Your task to perform on an android device: add a contact Image 0: 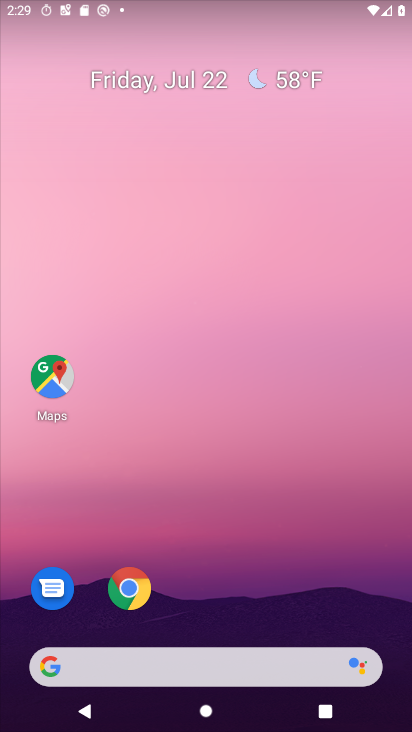
Step 0: drag from (296, 574) to (168, 54)
Your task to perform on an android device: add a contact Image 1: 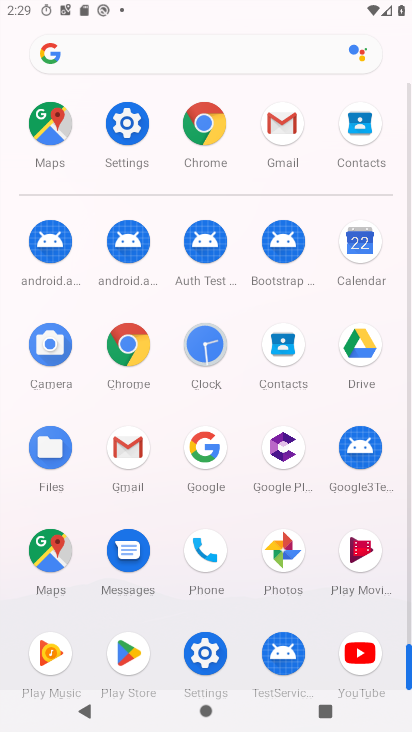
Step 1: click (358, 117)
Your task to perform on an android device: add a contact Image 2: 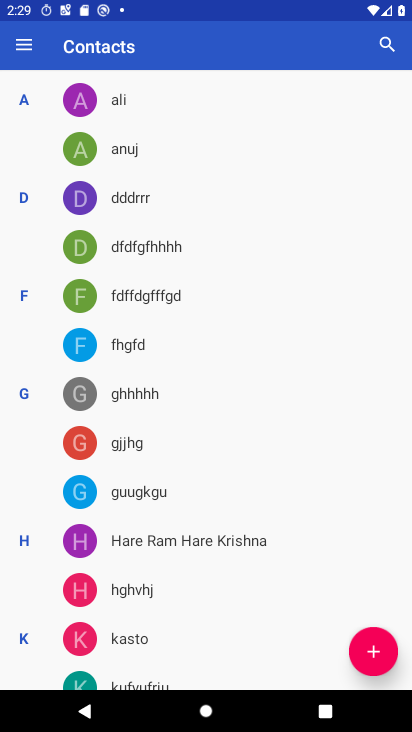
Step 2: click (373, 649)
Your task to perform on an android device: add a contact Image 3: 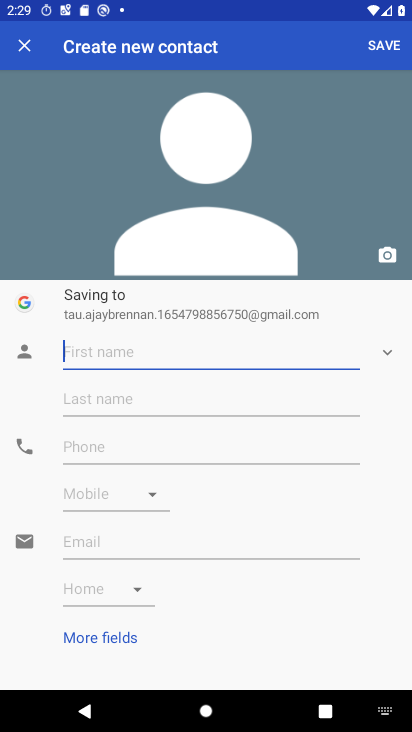
Step 3: type "uumhk"
Your task to perform on an android device: add a contact Image 4: 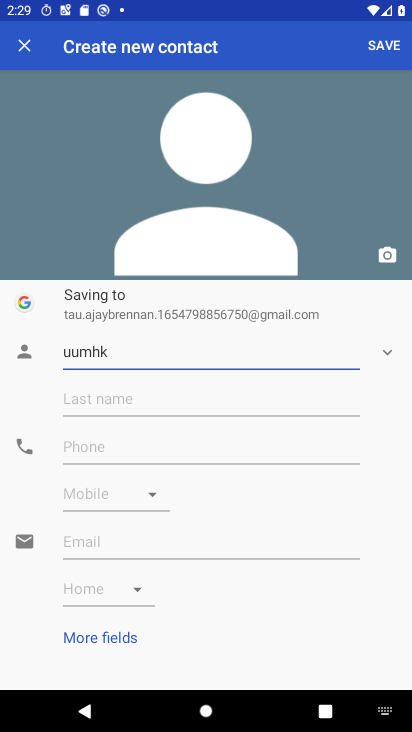
Step 4: click (255, 437)
Your task to perform on an android device: add a contact Image 5: 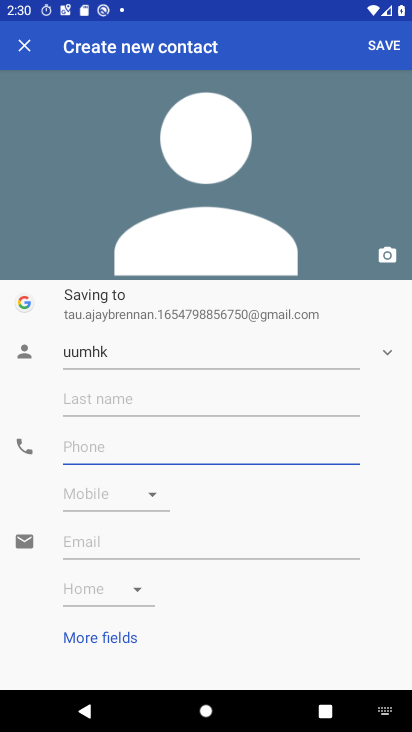
Step 5: type "84570"
Your task to perform on an android device: add a contact Image 6: 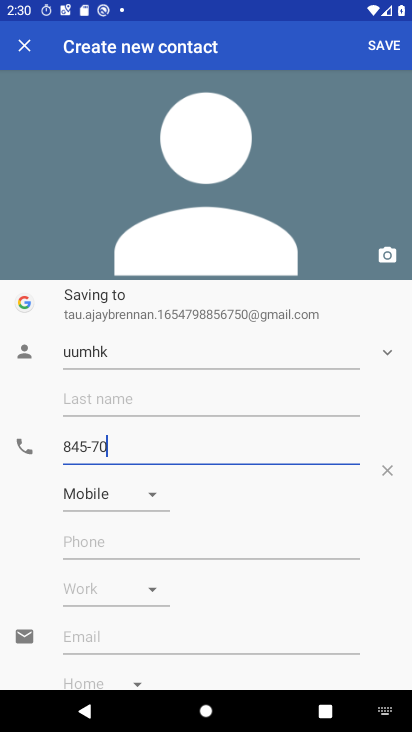
Step 6: click (374, 41)
Your task to perform on an android device: add a contact Image 7: 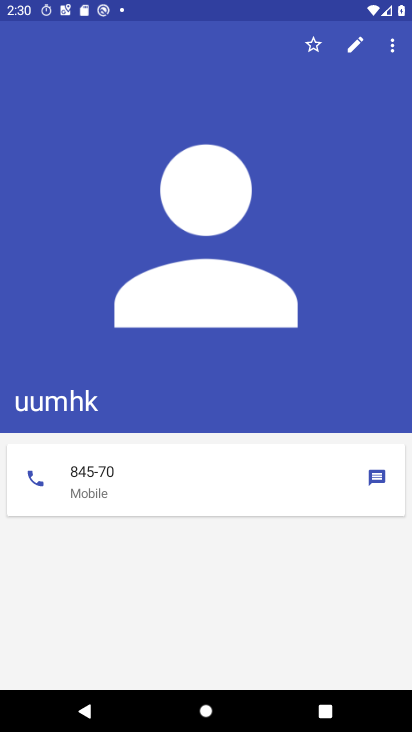
Step 7: task complete